Your task to perform on an android device: toggle data saver in the chrome app Image 0: 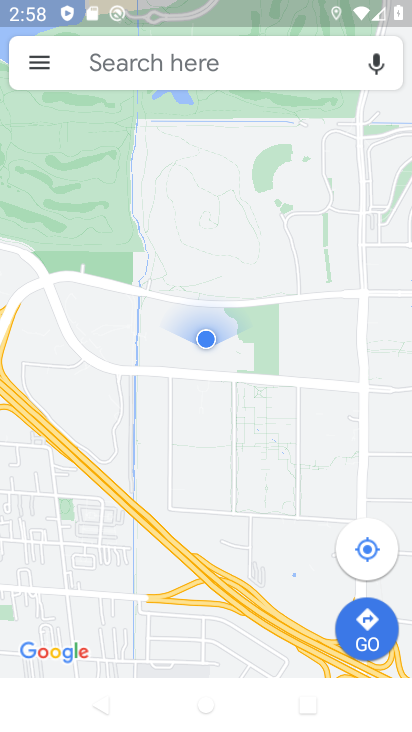
Step 0: press home button
Your task to perform on an android device: toggle data saver in the chrome app Image 1: 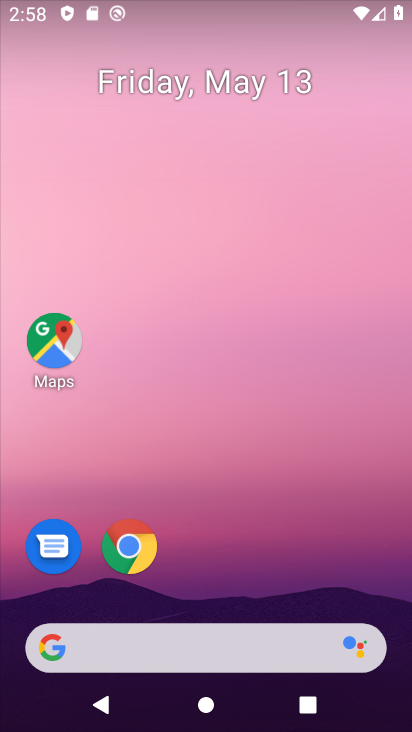
Step 1: click (135, 549)
Your task to perform on an android device: toggle data saver in the chrome app Image 2: 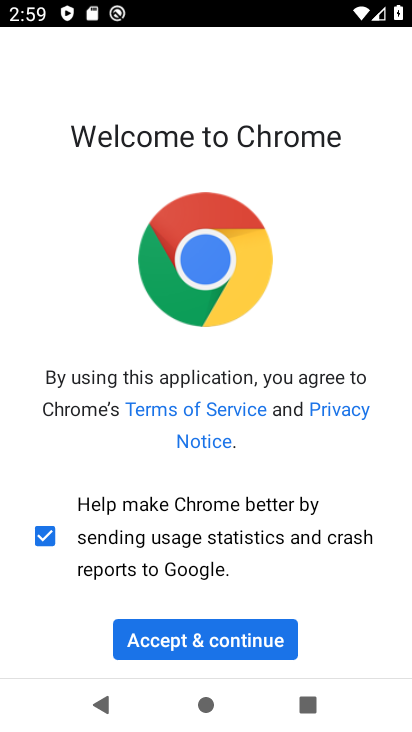
Step 2: click (154, 632)
Your task to perform on an android device: toggle data saver in the chrome app Image 3: 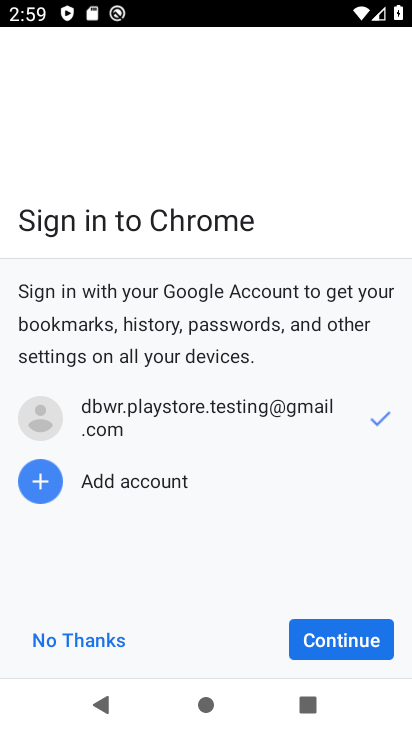
Step 3: click (311, 641)
Your task to perform on an android device: toggle data saver in the chrome app Image 4: 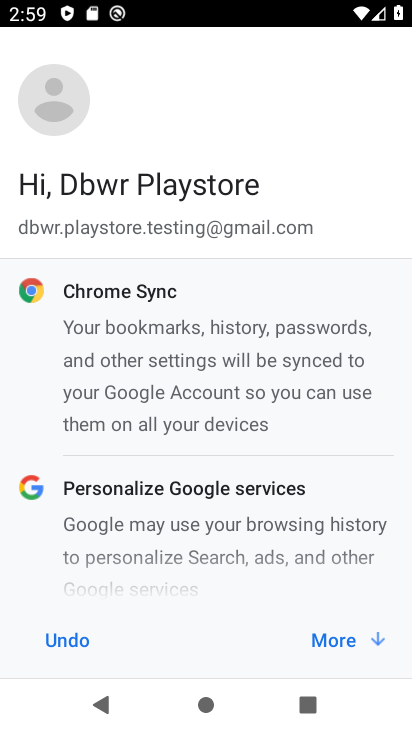
Step 4: click (341, 622)
Your task to perform on an android device: toggle data saver in the chrome app Image 5: 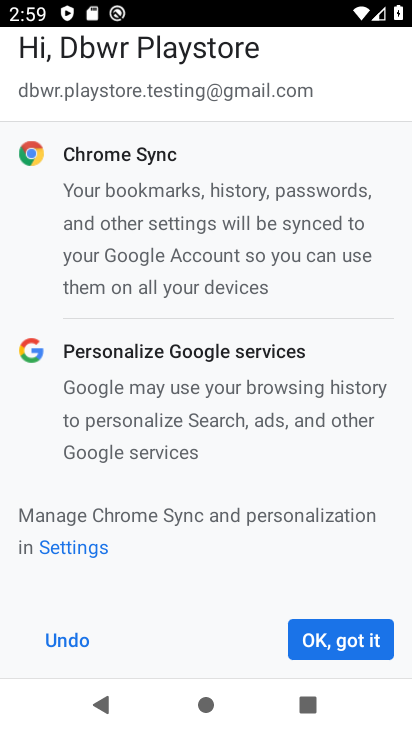
Step 5: click (320, 642)
Your task to perform on an android device: toggle data saver in the chrome app Image 6: 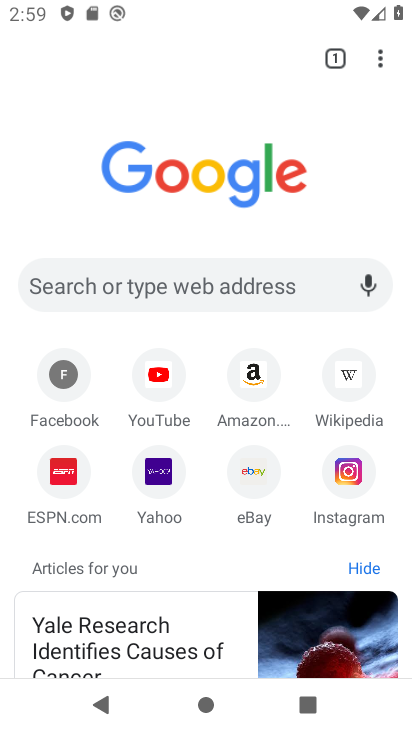
Step 6: click (390, 61)
Your task to perform on an android device: toggle data saver in the chrome app Image 7: 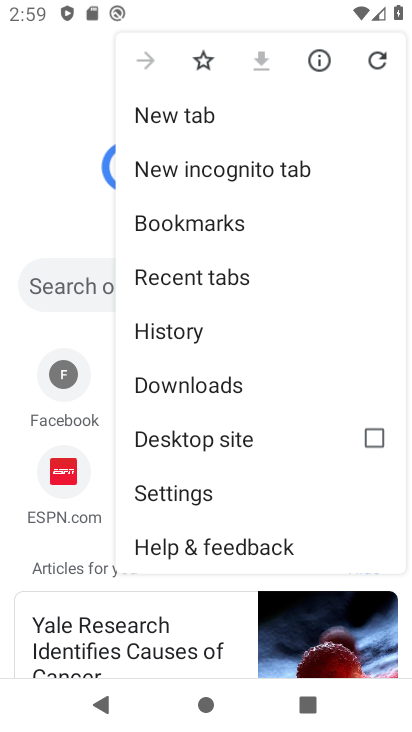
Step 7: click (155, 509)
Your task to perform on an android device: toggle data saver in the chrome app Image 8: 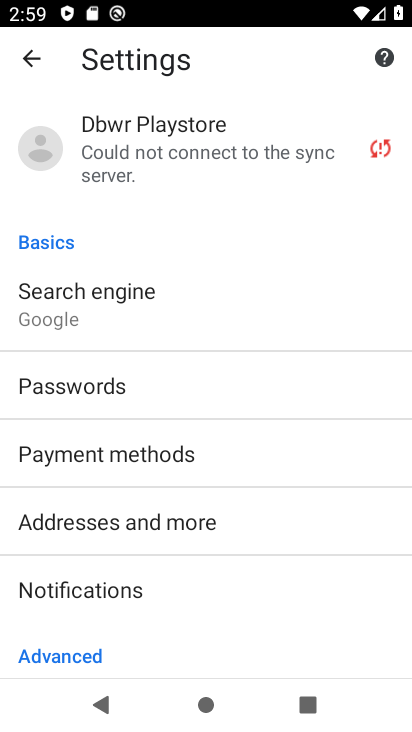
Step 8: drag from (159, 557) to (190, 264)
Your task to perform on an android device: toggle data saver in the chrome app Image 9: 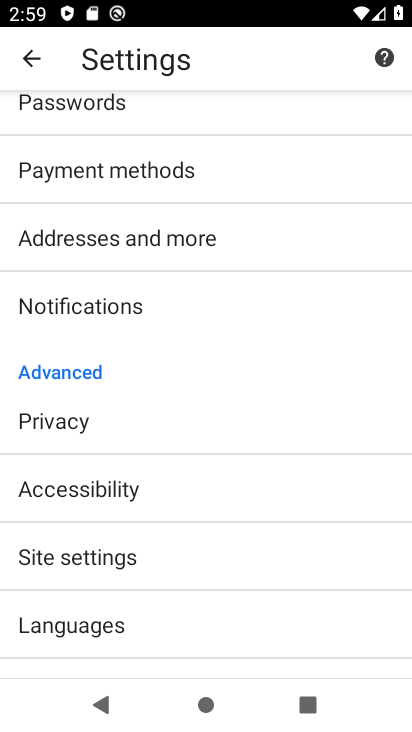
Step 9: drag from (115, 623) to (194, 306)
Your task to perform on an android device: toggle data saver in the chrome app Image 10: 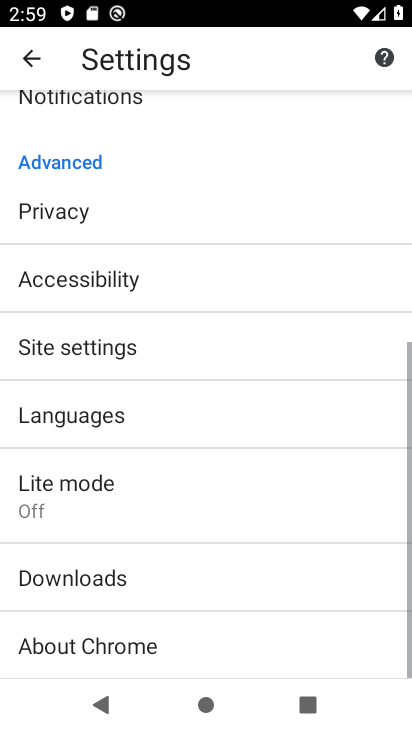
Step 10: click (102, 502)
Your task to perform on an android device: toggle data saver in the chrome app Image 11: 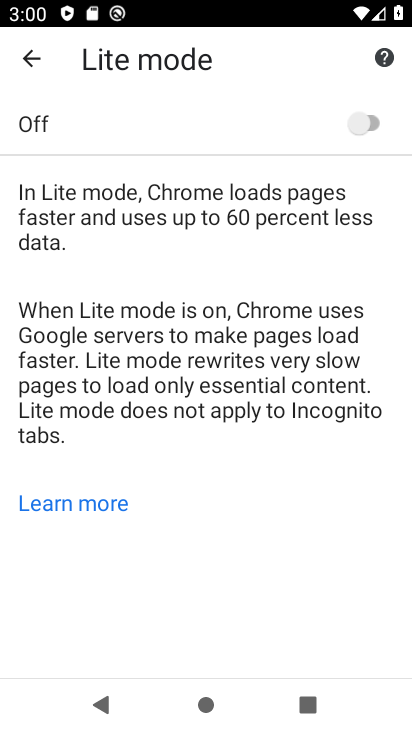
Step 11: click (383, 123)
Your task to perform on an android device: toggle data saver in the chrome app Image 12: 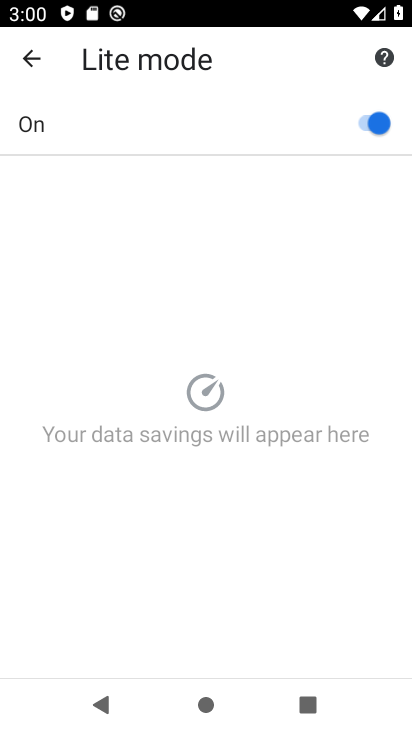
Step 12: click (383, 123)
Your task to perform on an android device: toggle data saver in the chrome app Image 13: 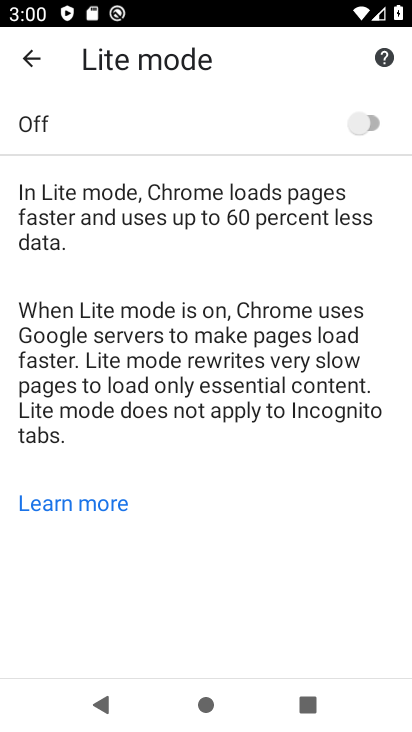
Step 13: task complete